Your task to perform on an android device: Go to display settings Image 0: 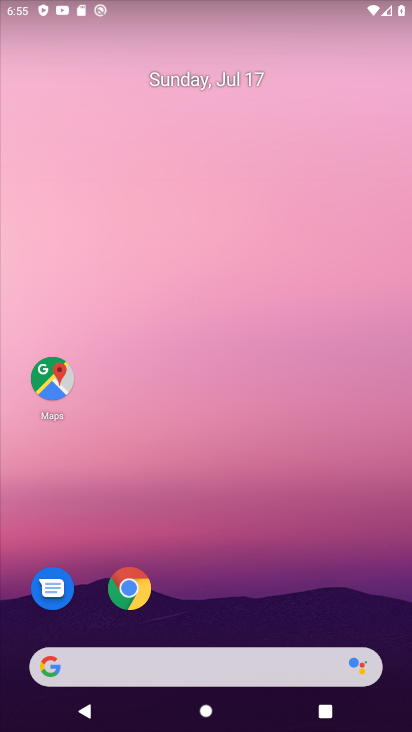
Step 0: drag from (377, 629) to (236, 29)
Your task to perform on an android device: Go to display settings Image 1: 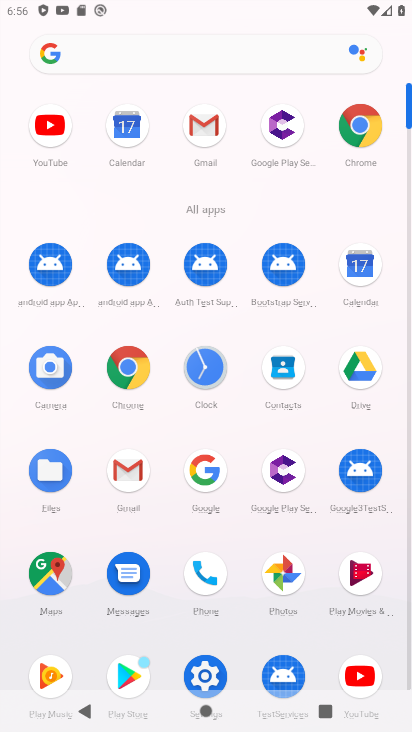
Step 1: click (204, 673)
Your task to perform on an android device: Go to display settings Image 2: 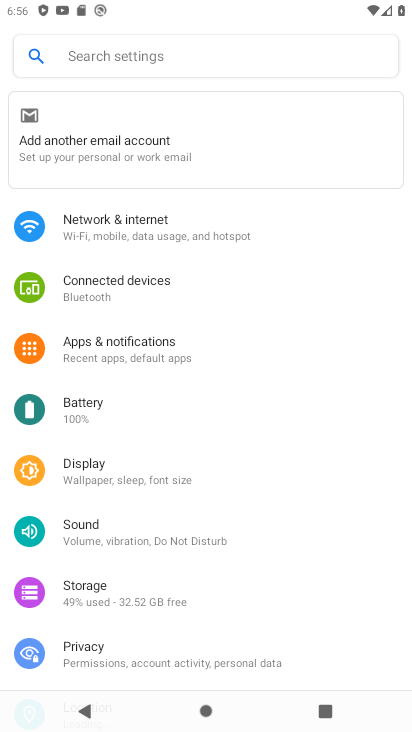
Step 2: click (129, 480)
Your task to perform on an android device: Go to display settings Image 3: 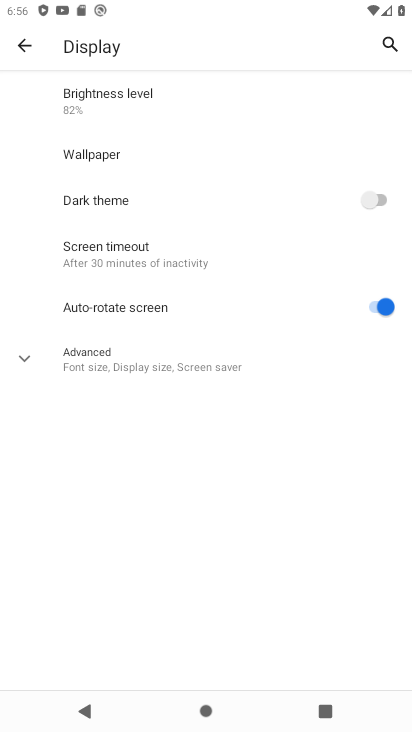
Step 3: task complete